Your task to perform on an android device: set default search engine in the chrome app Image 0: 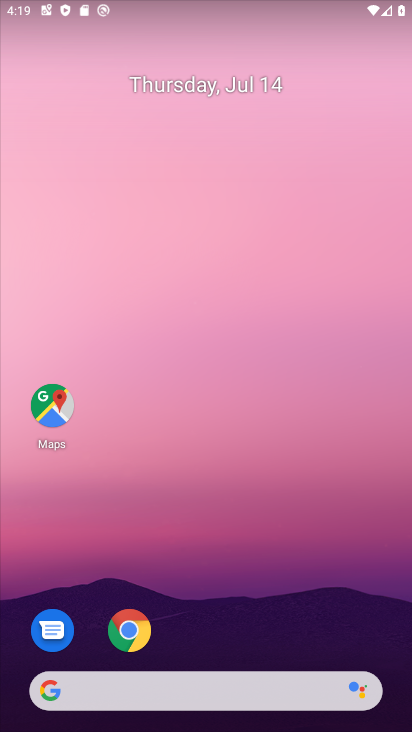
Step 0: drag from (276, 696) to (346, 0)
Your task to perform on an android device: set default search engine in the chrome app Image 1: 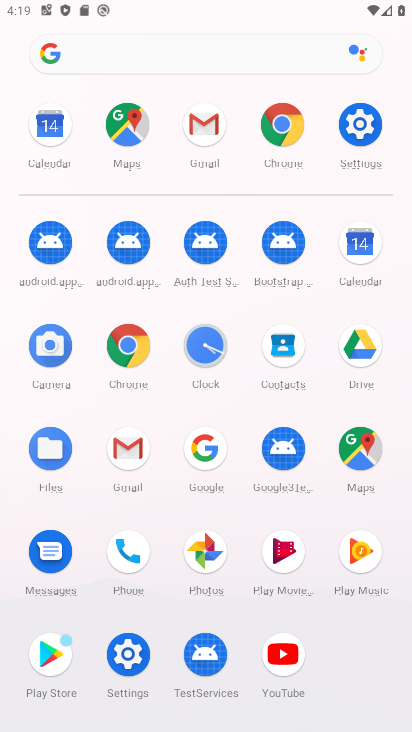
Step 1: click (113, 351)
Your task to perform on an android device: set default search engine in the chrome app Image 2: 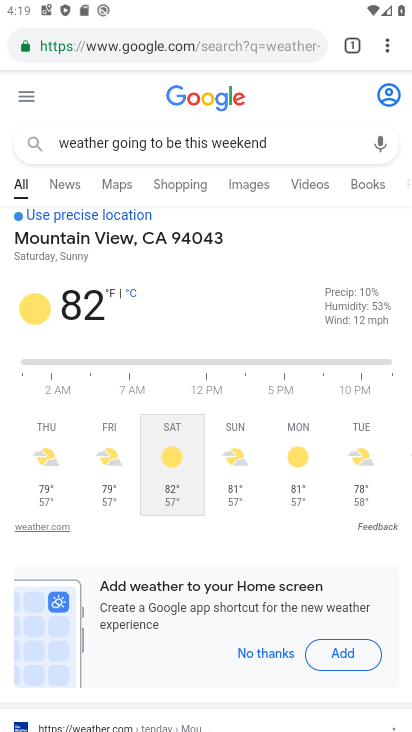
Step 2: drag from (378, 37) to (195, 511)
Your task to perform on an android device: set default search engine in the chrome app Image 3: 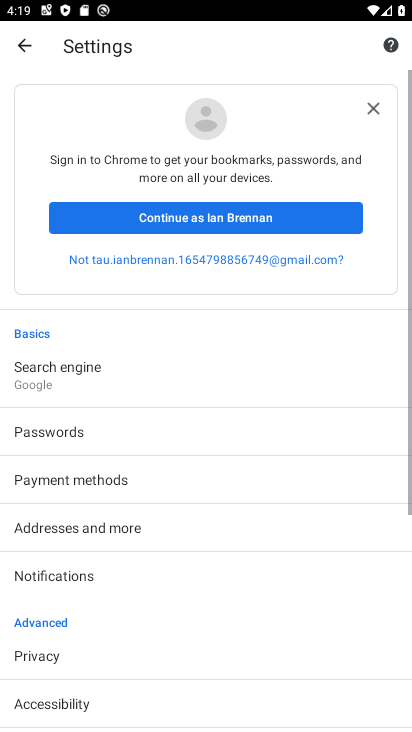
Step 3: click (120, 376)
Your task to perform on an android device: set default search engine in the chrome app Image 4: 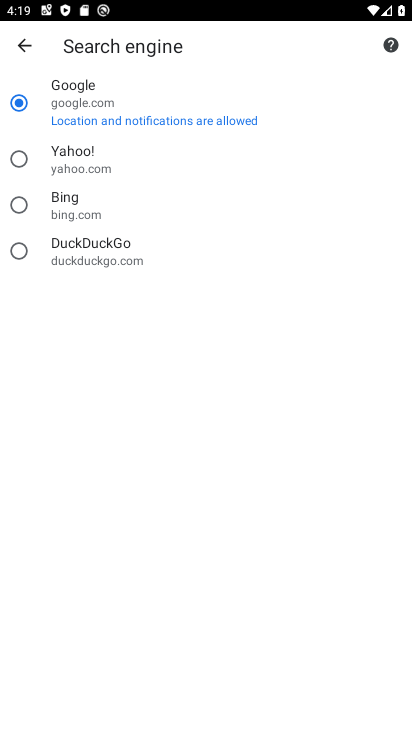
Step 4: task complete